Your task to perform on an android device: Search for seafood restaurants on Google Maps Image 0: 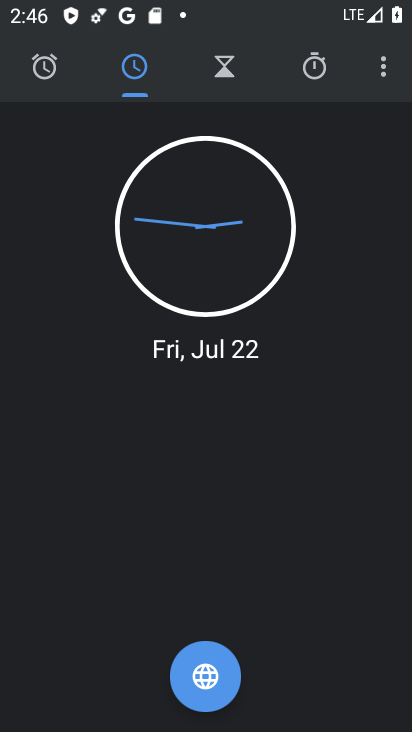
Step 0: press home button
Your task to perform on an android device: Search for seafood restaurants on Google Maps Image 1: 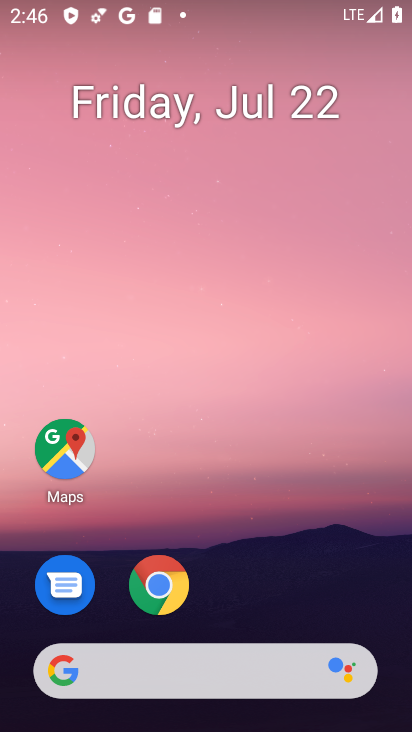
Step 1: click (65, 438)
Your task to perform on an android device: Search for seafood restaurants on Google Maps Image 2: 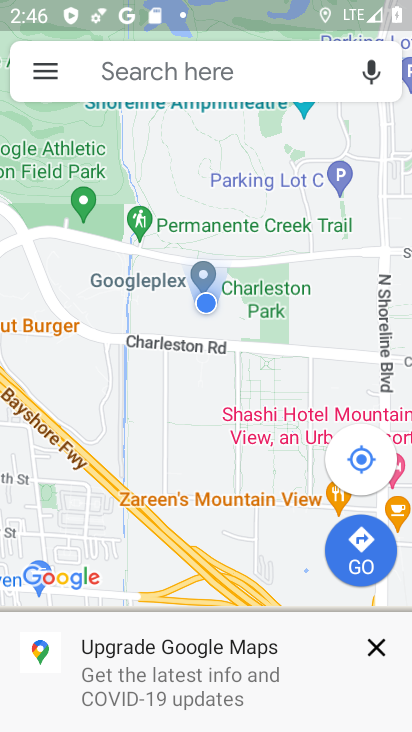
Step 2: click (216, 75)
Your task to perform on an android device: Search for seafood restaurants on Google Maps Image 3: 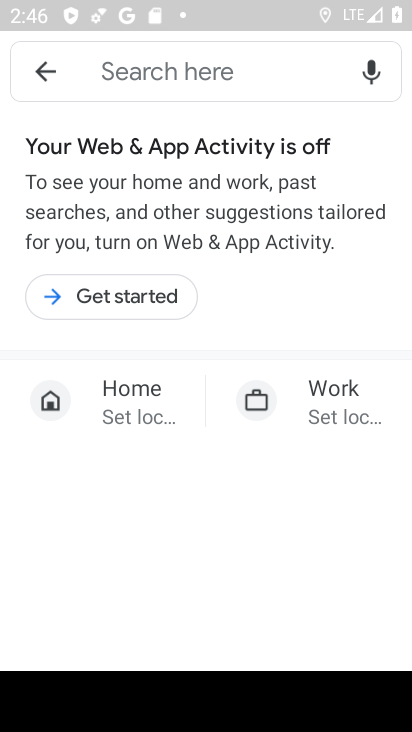
Step 3: type "seafood restaurants"
Your task to perform on an android device: Search for seafood restaurants on Google Maps Image 4: 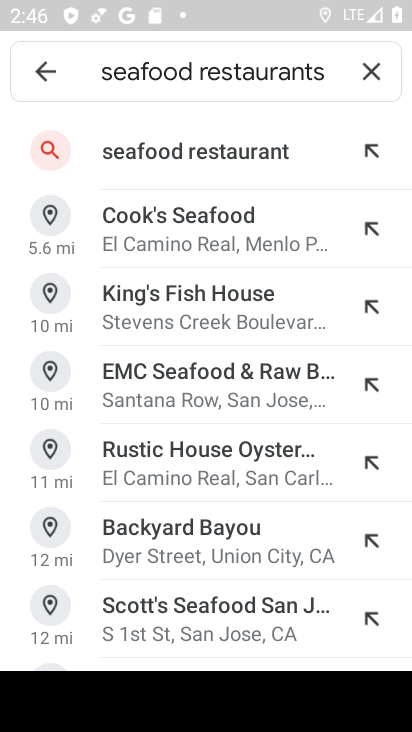
Step 4: click (263, 149)
Your task to perform on an android device: Search for seafood restaurants on Google Maps Image 5: 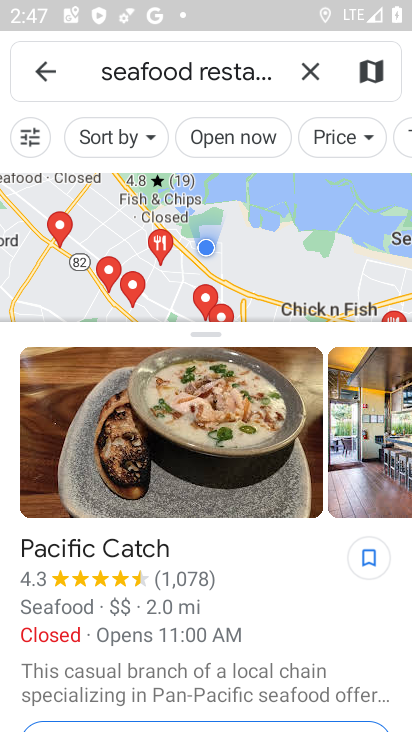
Step 5: task complete